Your task to perform on an android device: turn pop-ups on in chrome Image 0: 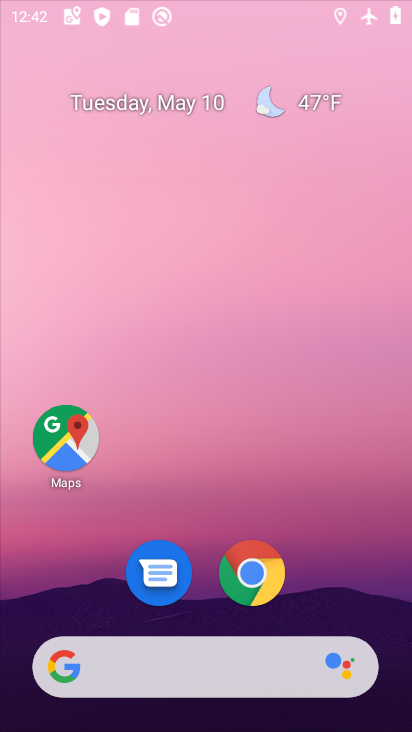
Step 0: click (240, 259)
Your task to perform on an android device: turn pop-ups on in chrome Image 1: 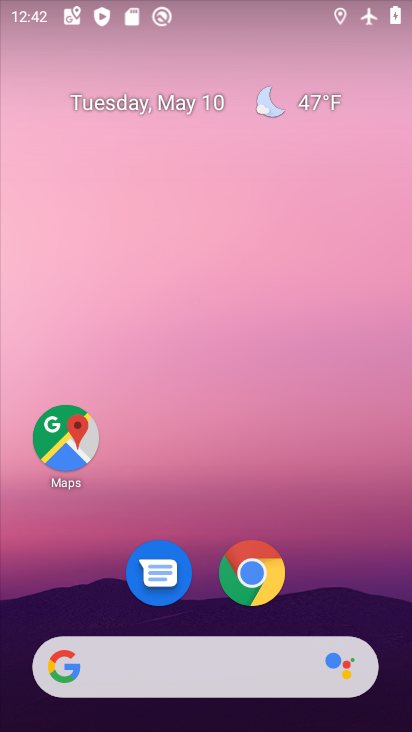
Step 1: drag from (215, 621) to (242, 202)
Your task to perform on an android device: turn pop-ups on in chrome Image 2: 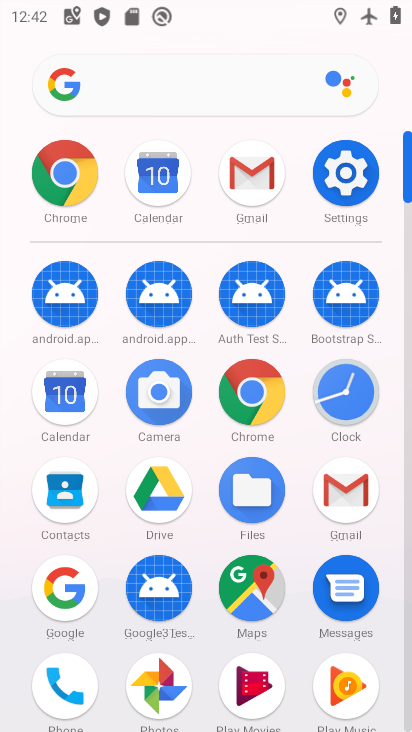
Step 2: click (249, 385)
Your task to perform on an android device: turn pop-ups on in chrome Image 3: 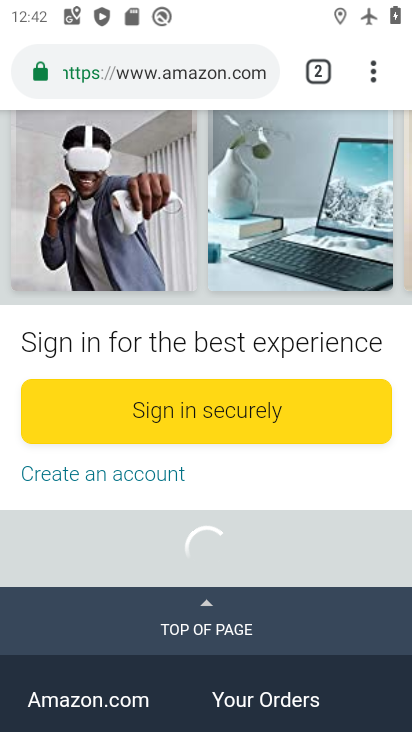
Step 3: drag from (206, 313) to (191, 635)
Your task to perform on an android device: turn pop-ups on in chrome Image 4: 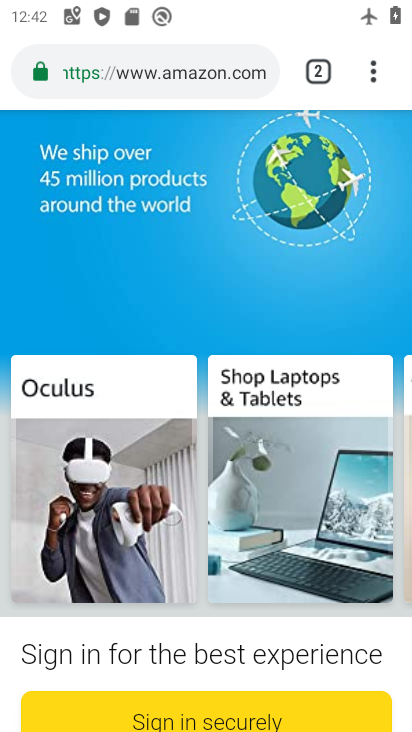
Step 4: drag from (181, 602) to (238, 255)
Your task to perform on an android device: turn pop-ups on in chrome Image 5: 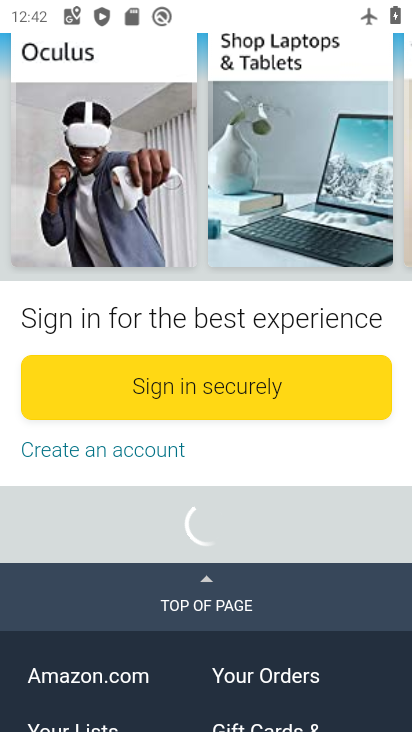
Step 5: drag from (306, 140) to (283, 614)
Your task to perform on an android device: turn pop-ups on in chrome Image 6: 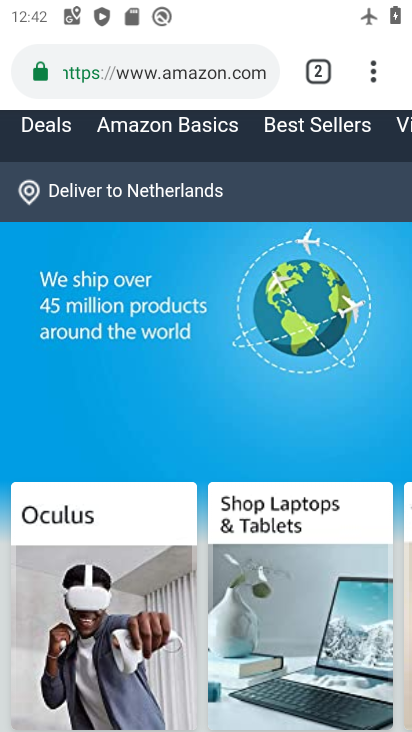
Step 6: click (371, 74)
Your task to perform on an android device: turn pop-ups on in chrome Image 7: 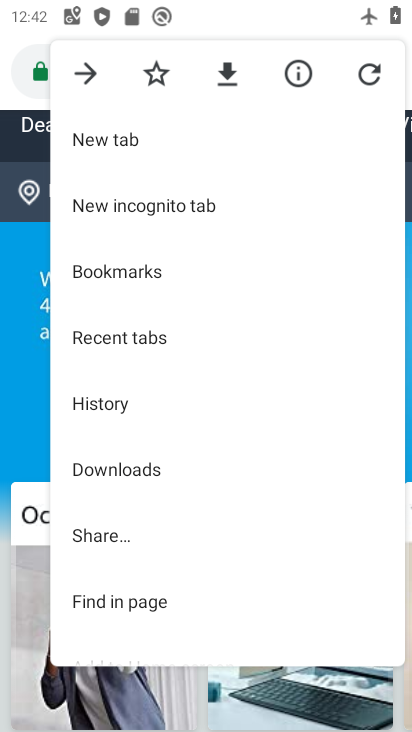
Step 7: drag from (147, 552) to (186, 124)
Your task to perform on an android device: turn pop-ups on in chrome Image 8: 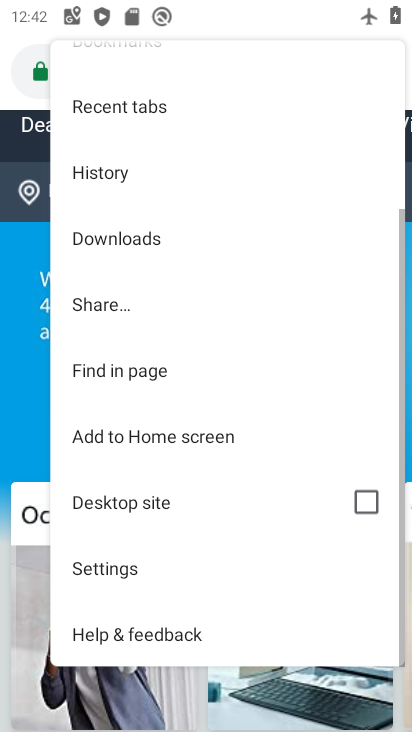
Step 8: click (135, 557)
Your task to perform on an android device: turn pop-ups on in chrome Image 9: 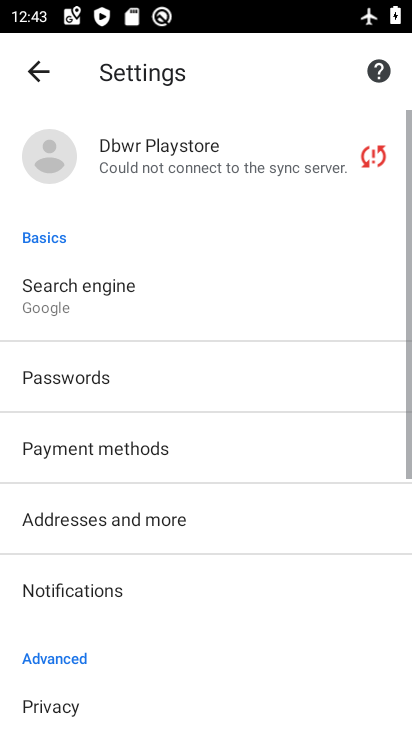
Step 9: drag from (202, 551) to (292, 177)
Your task to perform on an android device: turn pop-ups on in chrome Image 10: 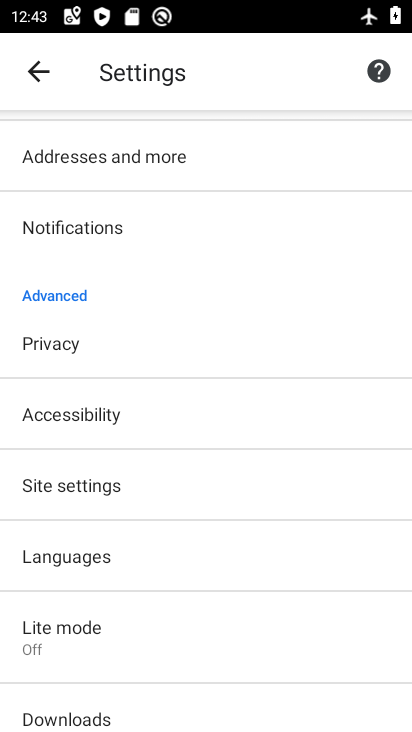
Step 10: drag from (213, 680) to (242, 238)
Your task to perform on an android device: turn pop-ups on in chrome Image 11: 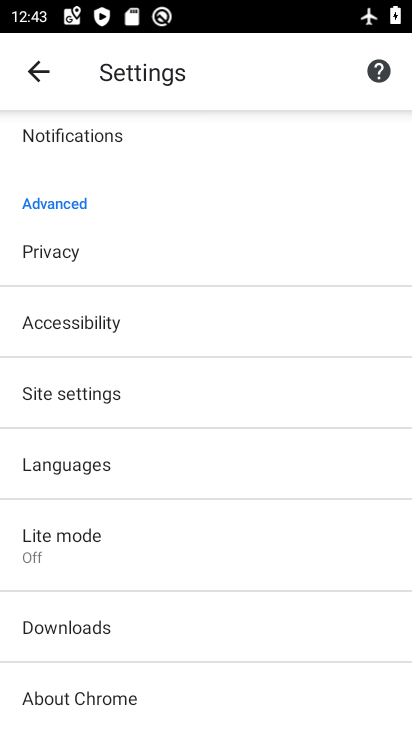
Step 11: click (121, 390)
Your task to perform on an android device: turn pop-ups on in chrome Image 12: 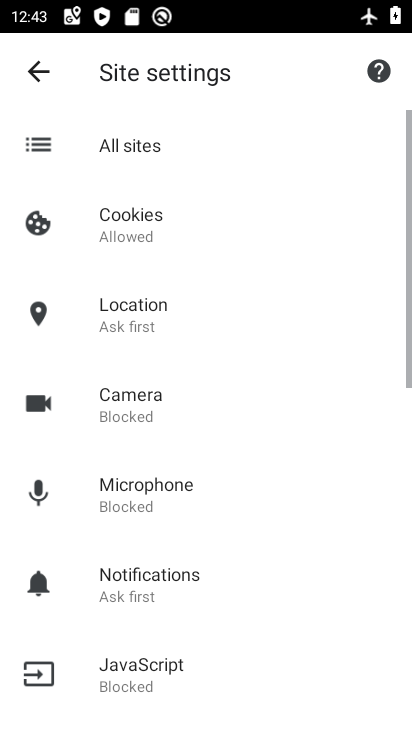
Step 12: drag from (208, 592) to (300, 194)
Your task to perform on an android device: turn pop-ups on in chrome Image 13: 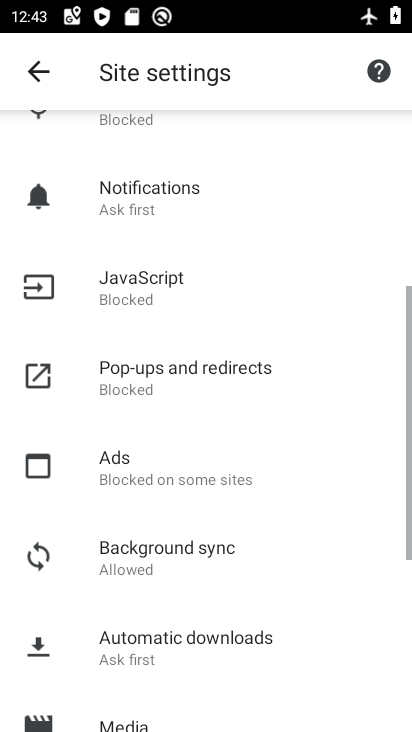
Step 13: click (176, 392)
Your task to perform on an android device: turn pop-ups on in chrome Image 14: 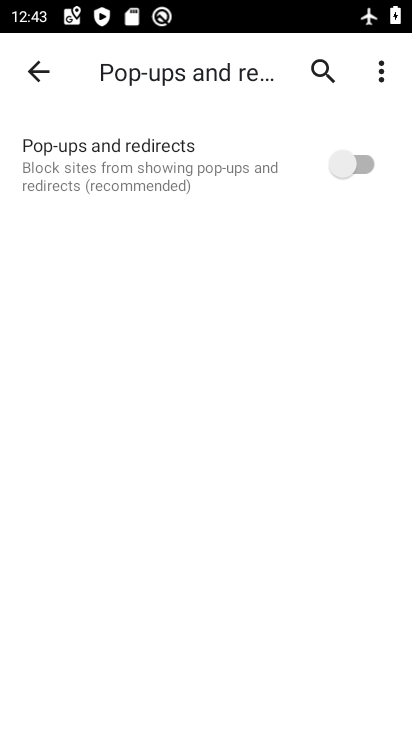
Step 14: click (330, 148)
Your task to perform on an android device: turn pop-ups on in chrome Image 15: 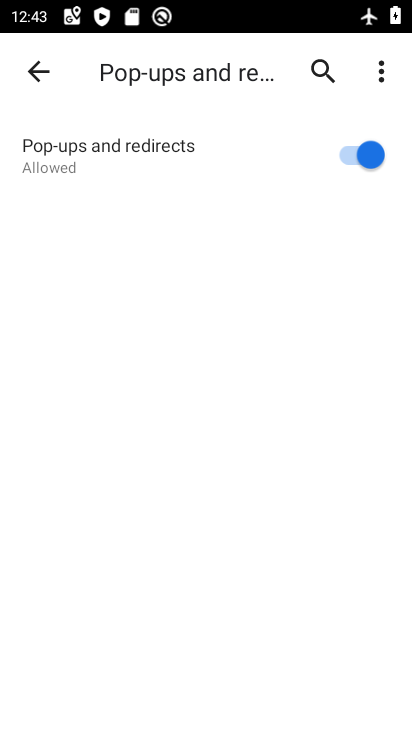
Step 15: task complete